Your task to perform on an android device: Do I have any events this weekend? Image 0: 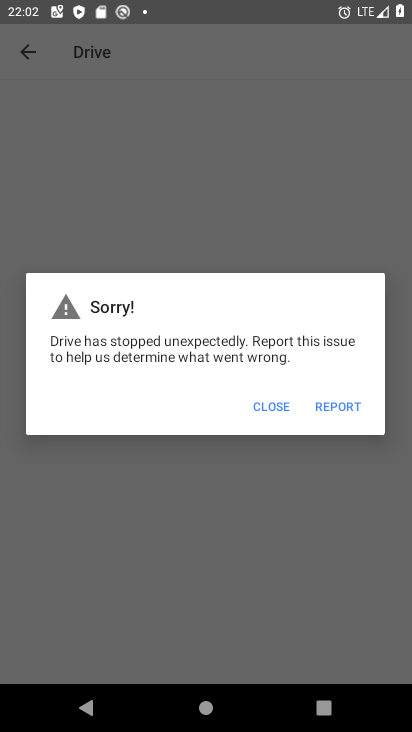
Step 0: press home button
Your task to perform on an android device: Do I have any events this weekend? Image 1: 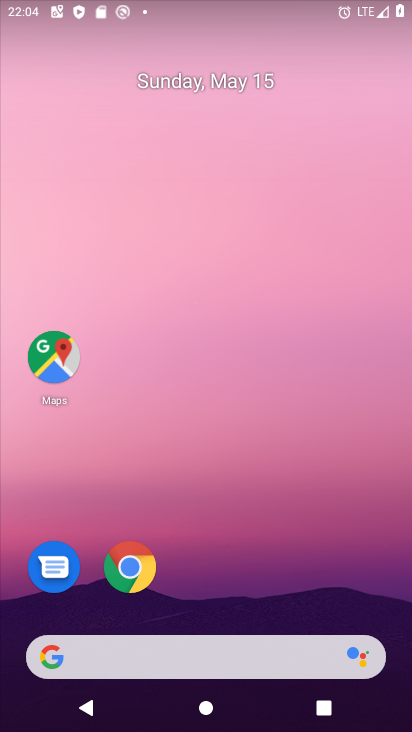
Step 1: drag from (145, 638) to (253, 100)
Your task to perform on an android device: Do I have any events this weekend? Image 2: 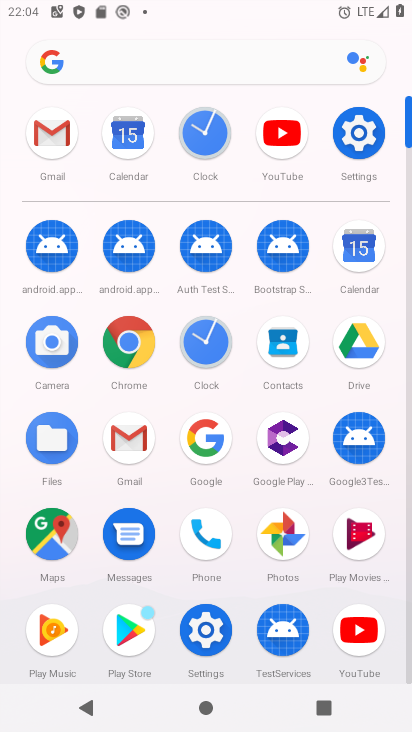
Step 2: click (363, 253)
Your task to perform on an android device: Do I have any events this weekend? Image 3: 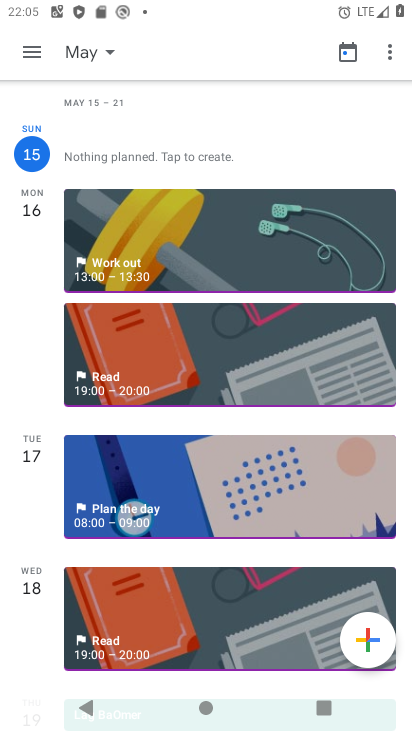
Step 3: task complete